Your task to perform on an android device: Go to privacy settings Image 0: 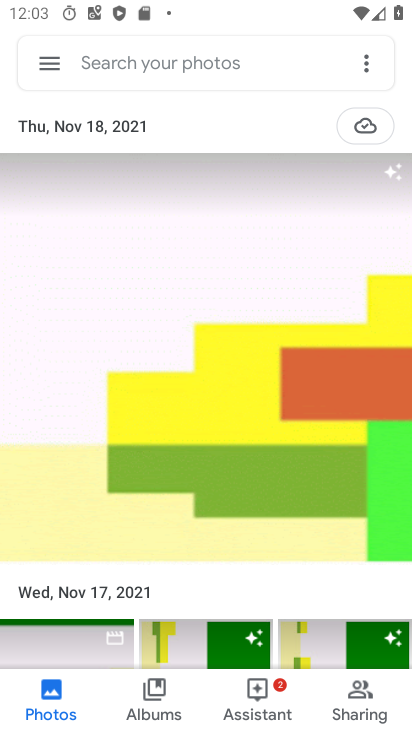
Step 0: press home button
Your task to perform on an android device: Go to privacy settings Image 1: 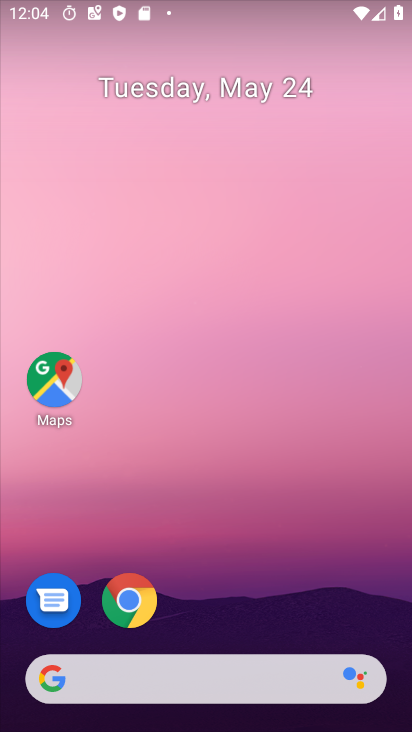
Step 1: drag from (237, 609) to (236, 168)
Your task to perform on an android device: Go to privacy settings Image 2: 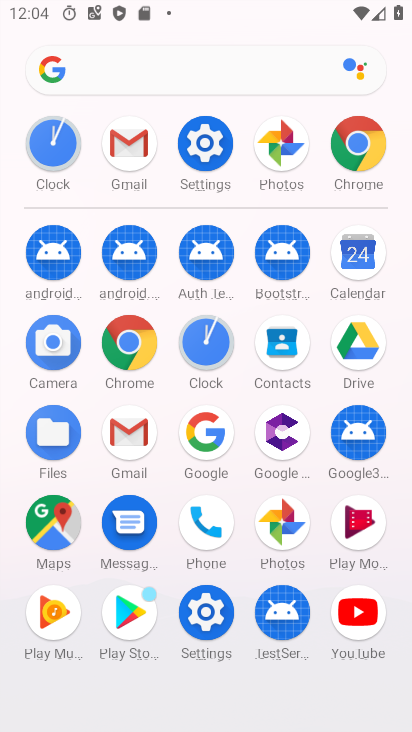
Step 2: click (191, 150)
Your task to perform on an android device: Go to privacy settings Image 3: 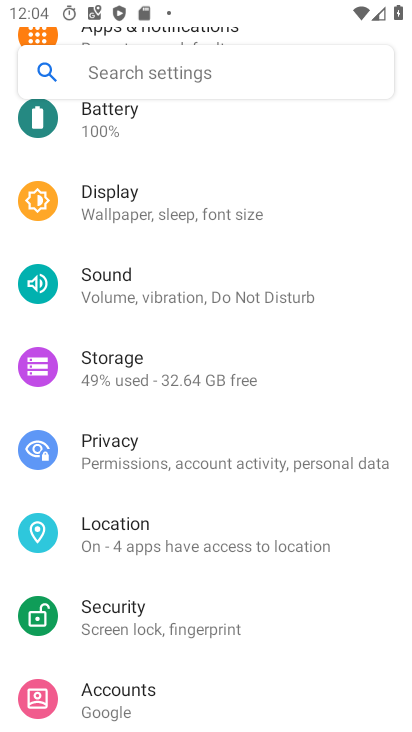
Step 3: drag from (231, 627) to (332, 148)
Your task to perform on an android device: Go to privacy settings Image 4: 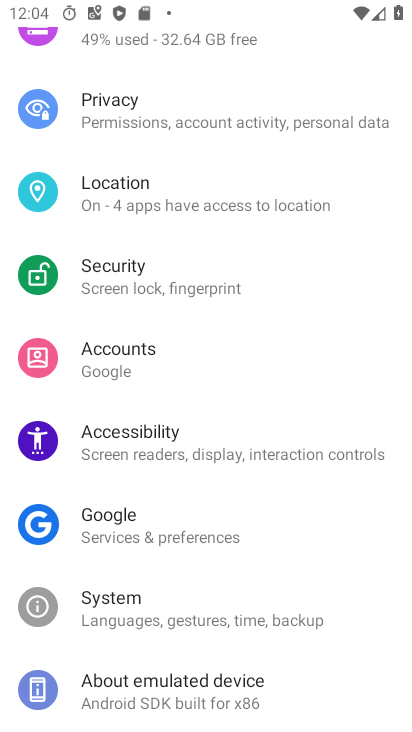
Step 4: click (161, 104)
Your task to perform on an android device: Go to privacy settings Image 5: 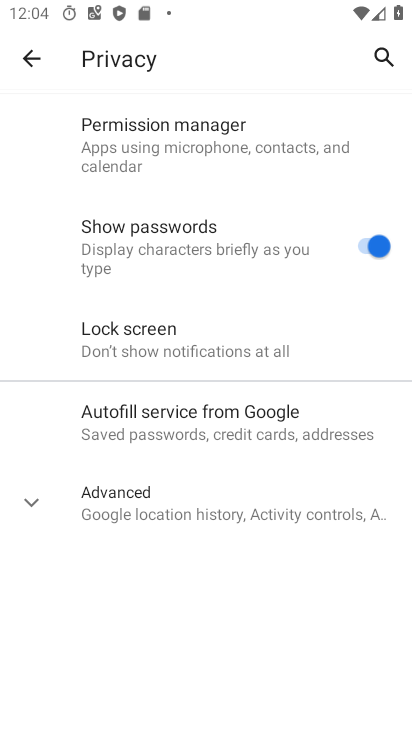
Step 5: task complete